Your task to perform on an android device: Open notification settings Image 0: 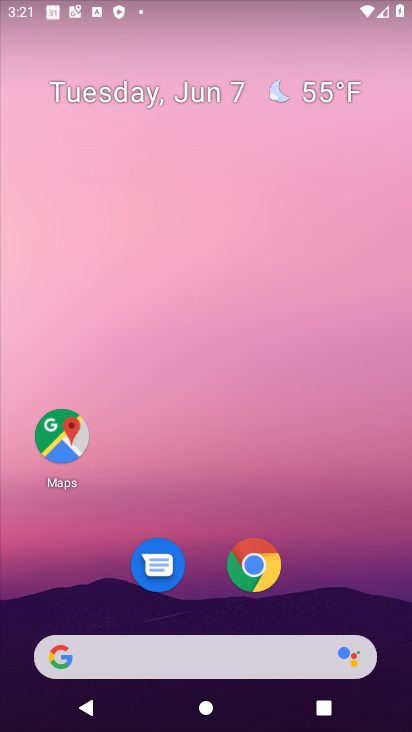
Step 0: drag from (246, 576) to (289, 74)
Your task to perform on an android device: Open notification settings Image 1: 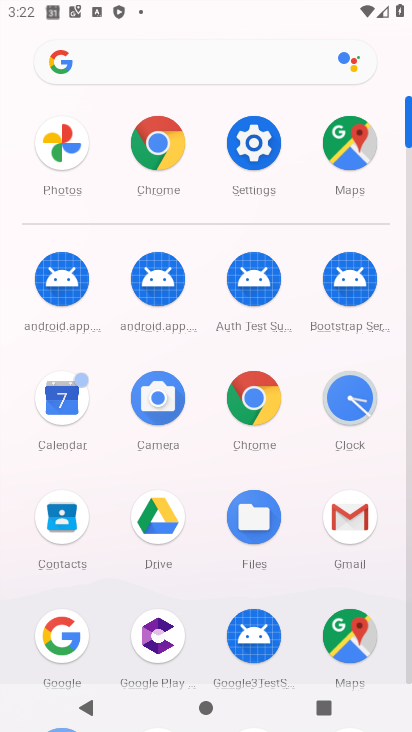
Step 1: click (252, 133)
Your task to perform on an android device: Open notification settings Image 2: 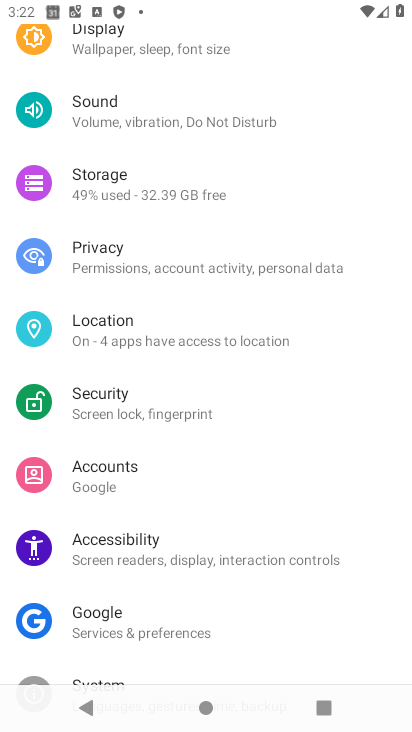
Step 2: drag from (211, 275) to (229, 727)
Your task to perform on an android device: Open notification settings Image 3: 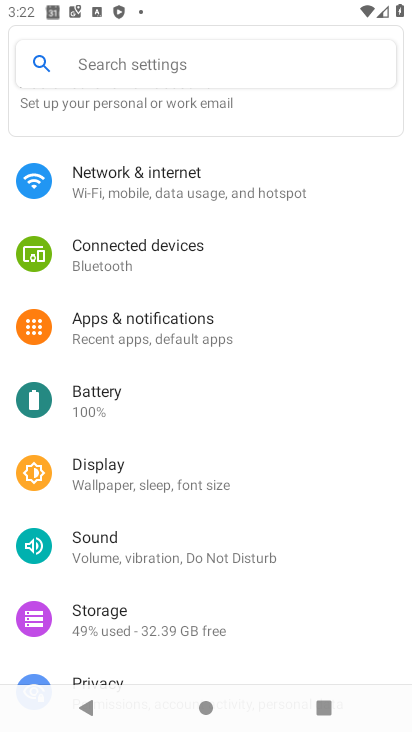
Step 3: click (177, 332)
Your task to perform on an android device: Open notification settings Image 4: 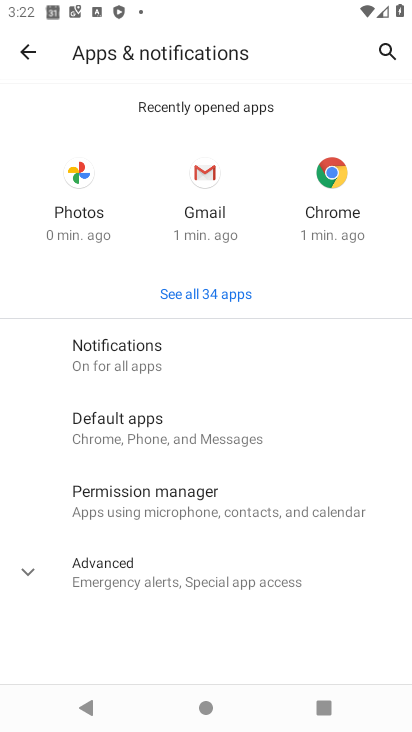
Step 4: click (168, 392)
Your task to perform on an android device: Open notification settings Image 5: 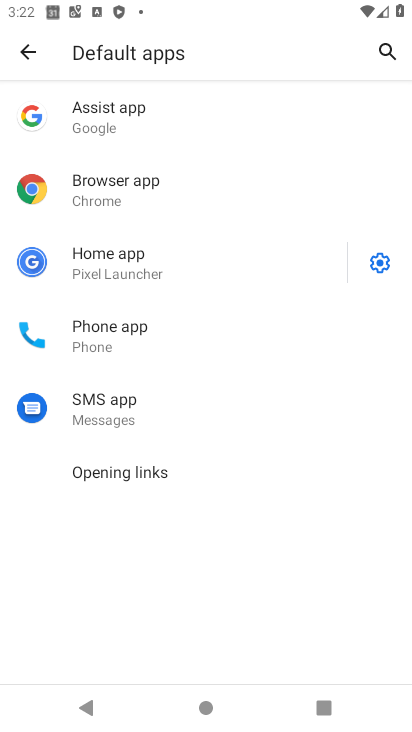
Step 5: press back button
Your task to perform on an android device: Open notification settings Image 6: 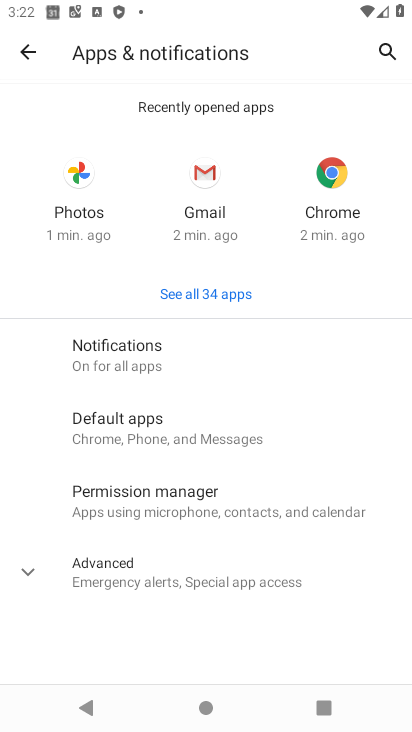
Step 6: click (198, 355)
Your task to perform on an android device: Open notification settings Image 7: 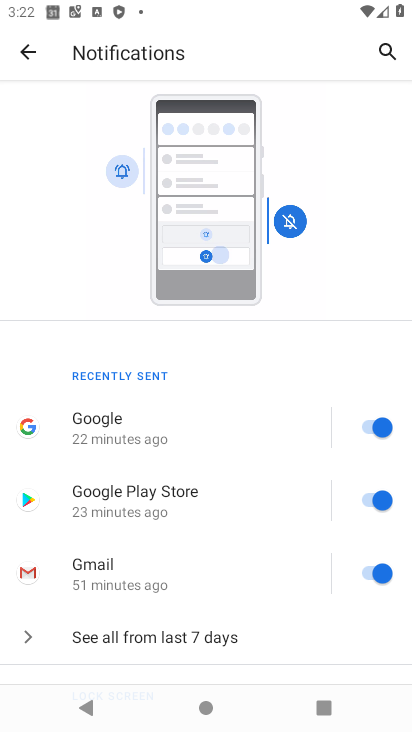
Step 7: task complete